Your task to perform on an android device: change the clock display to digital Image 0: 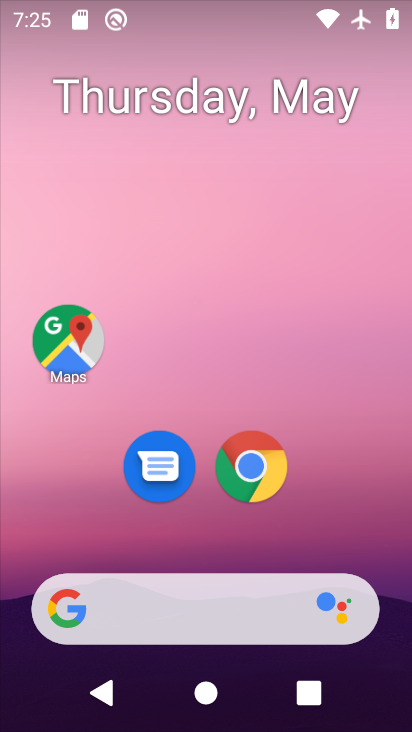
Step 0: drag from (369, 518) to (311, 203)
Your task to perform on an android device: change the clock display to digital Image 1: 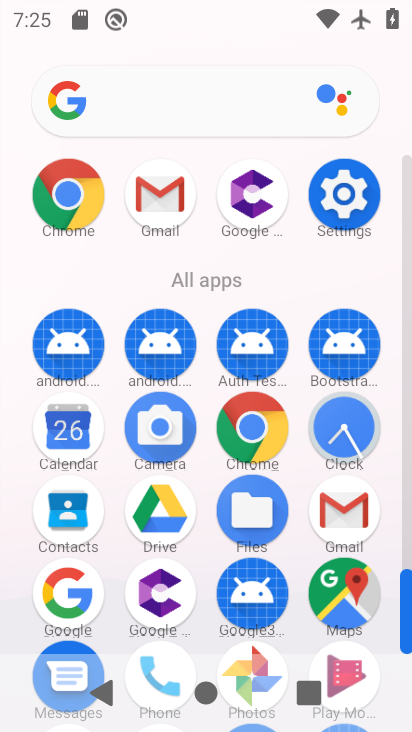
Step 1: click (350, 451)
Your task to perform on an android device: change the clock display to digital Image 2: 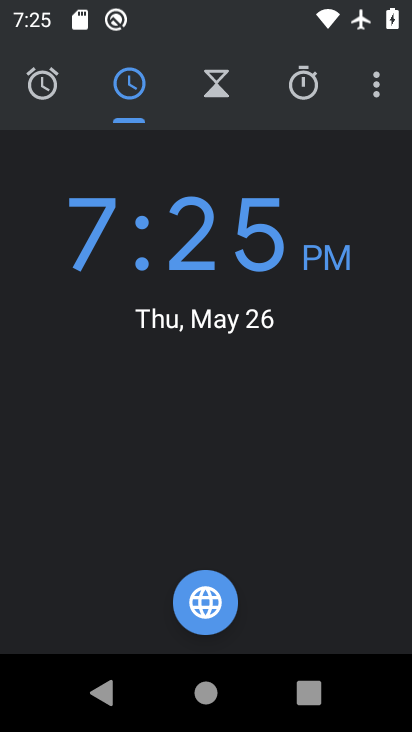
Step 2: click (354, 79)
Your task to perform on an android device: change the clock display to digital Image 3: 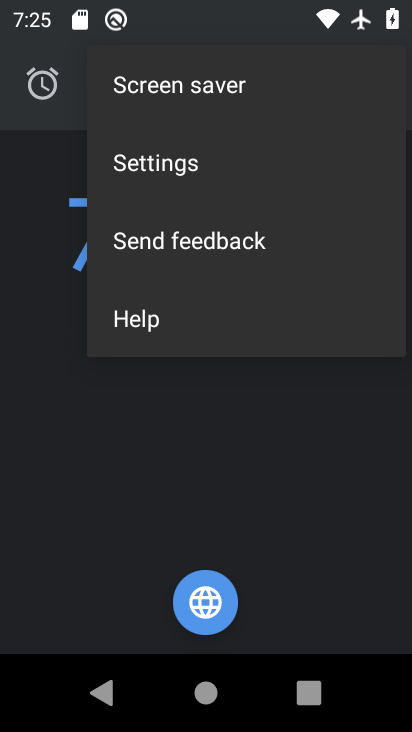
Step 3: click (273, 168)
Your task to perform on an android device: change the clock display to digital Image 4: 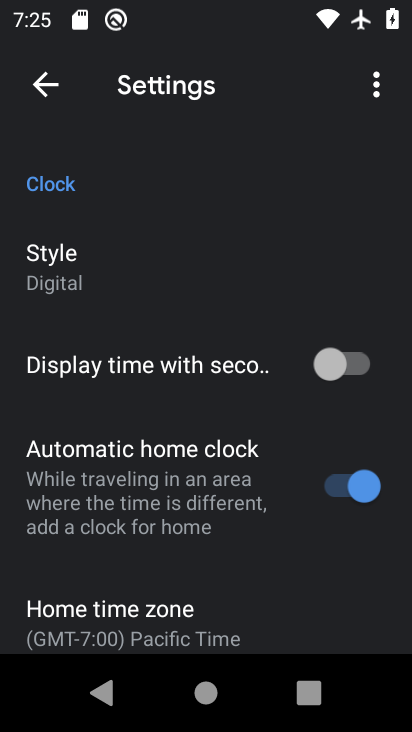
Step 4: task complete